Your task to perform on an android device: Open settings on Google Maps Image 0: 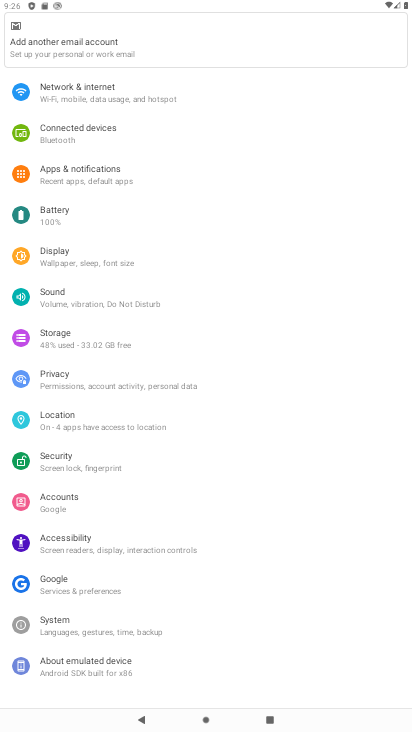
Step 0: press home button
Your task to perform on an android device: Open settings on Google Maps Image 1: 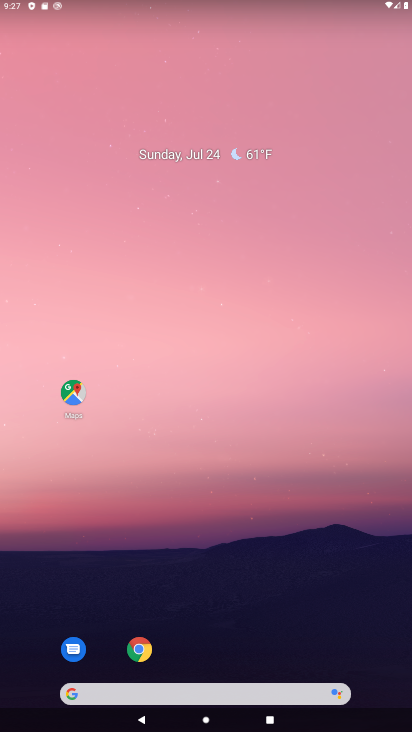
Step 1: drag from (313, 33) to (378, 314)
Your task to perform on an android device: Open settings on Google Maps Image 2: 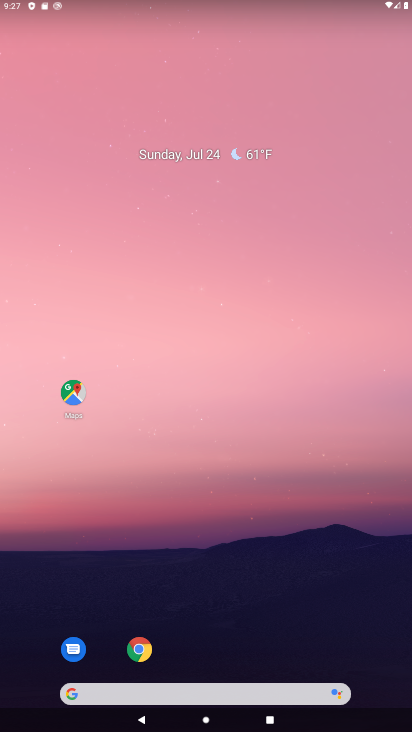
Step 2: drag from (267, 607) to (278, 19)
Your task to perform on an android device: Open settings on Google Maps Image 3: 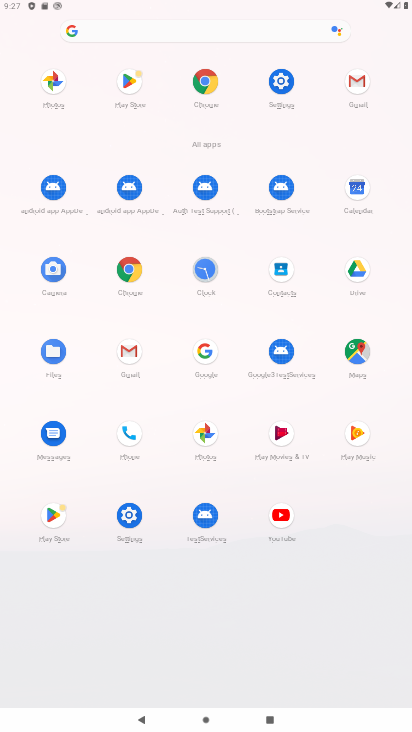
Step 3: click (352, 353)
Your task to perform on an android device: Open settings on Google Maps Image 4: 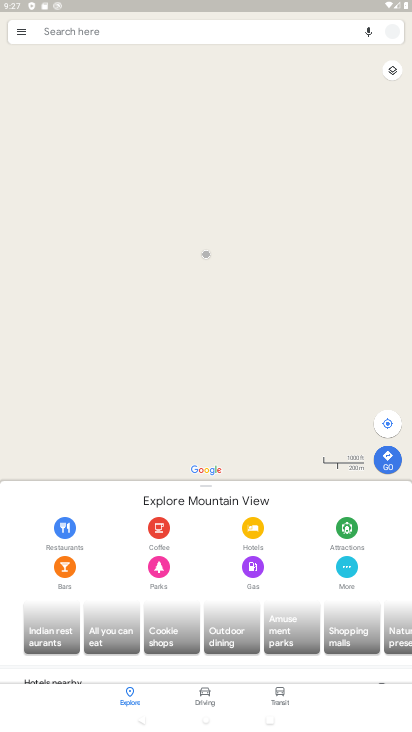
Step 4: click (20, 20)
Your task to perform on an android device: Open settings on Google Maps Image 5: 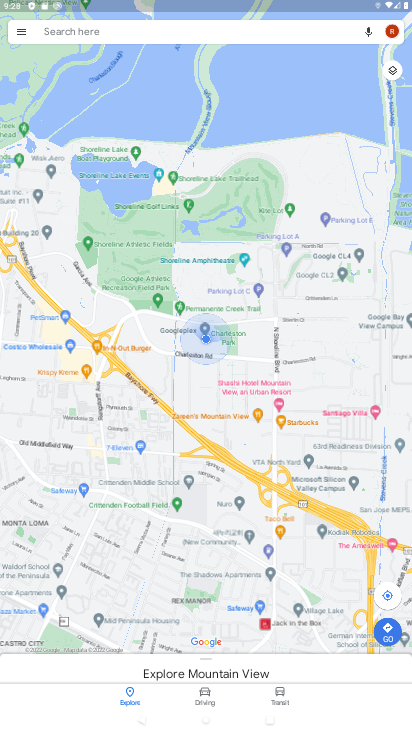
Step 5: click (19, 34)
Your task to perform on an android device: Open settings on Google Maps Image 6: 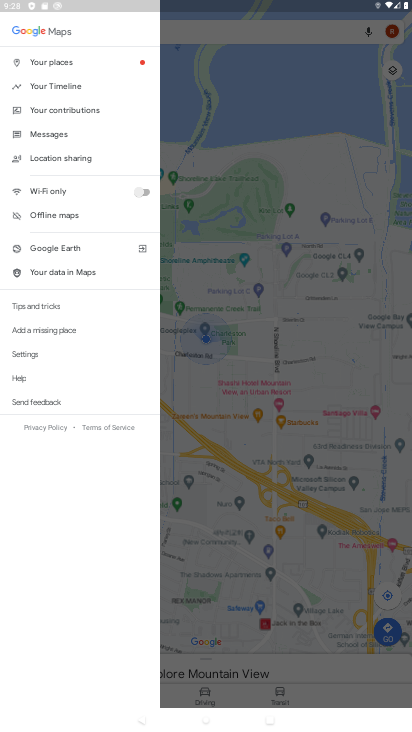
Step 6: click (31, 347)
Your task to perform on an android device: Open settings on Google Maps Image 7: 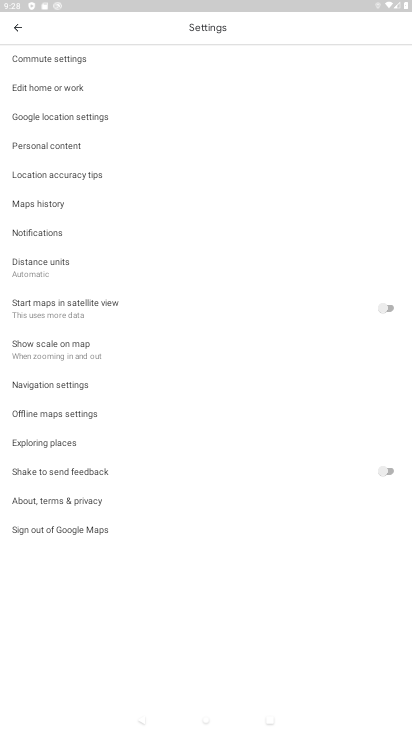
Step 7: task complete